Your task to perform on an android device: toggle location history Image 0: 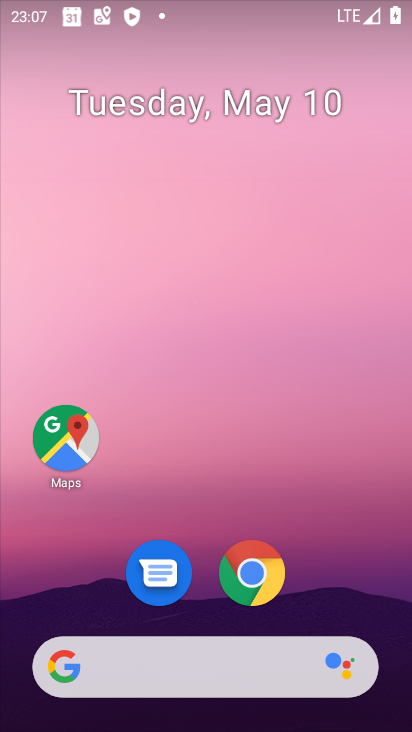
Step 0: click (75, 445)
Your task to perform on an android device: toggle location history Image 1: 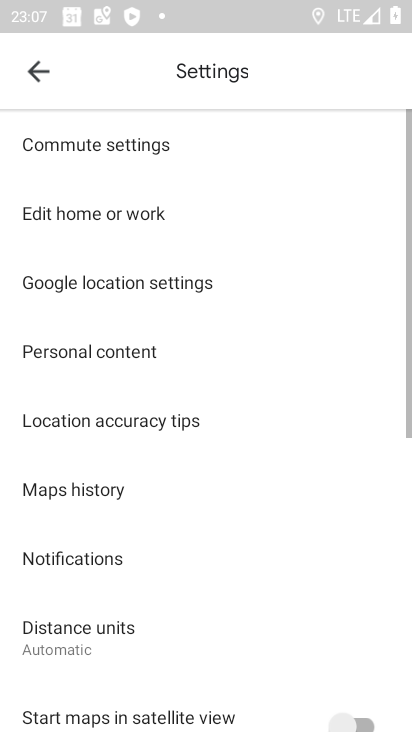
Step 1: click (40, 72)
Your task to perform on an android device: toggle location history Image 2: 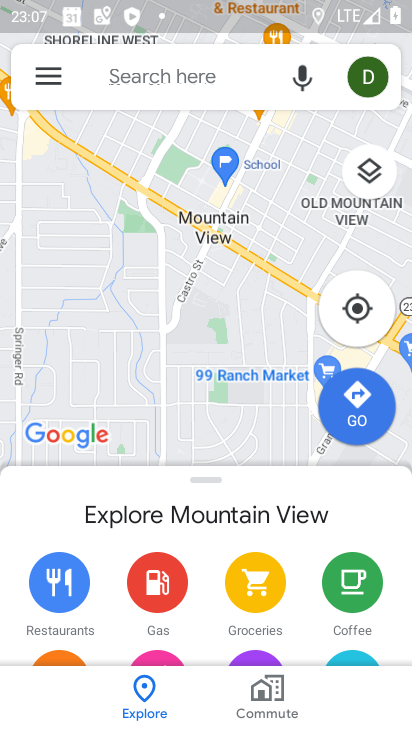
Step 2: click (51, 66)
Your task to perform on an android device: toggle location history Image 3: 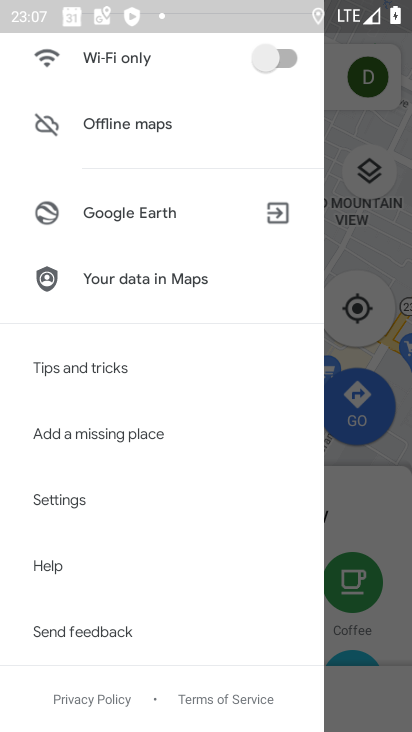
Step 3: drag from (171, 226) to (179, 730)
Your task to perform on an android device: toggle location history Image 4: 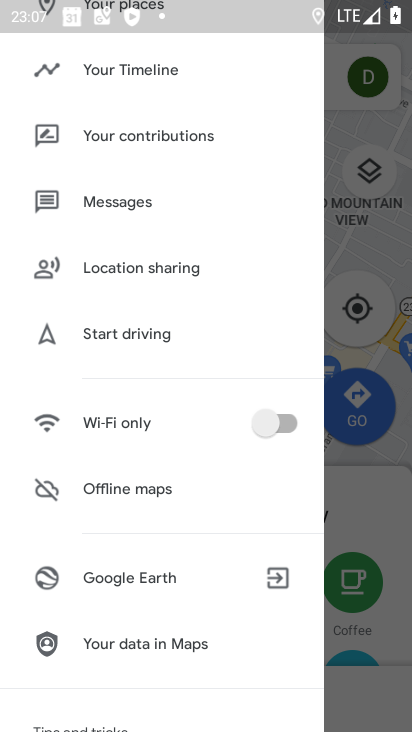
Step 4: click (140, 73)
Your task to perform on an android device: toggle location history Image 5: 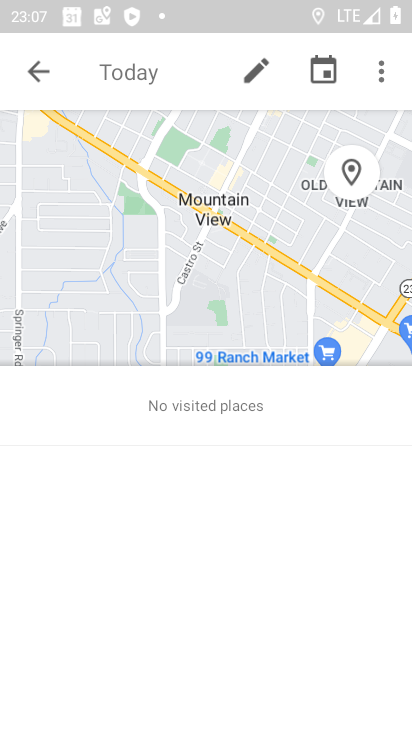
Step 5: click (374, 67)
Your task to perform on an android device: toggle location history Image 6: 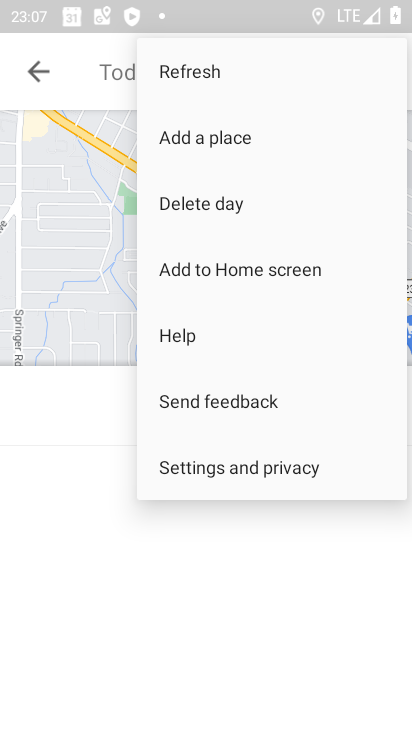
Step 6: click (243, 466)
Your task to perform on an android device: toggle location history Image 7: 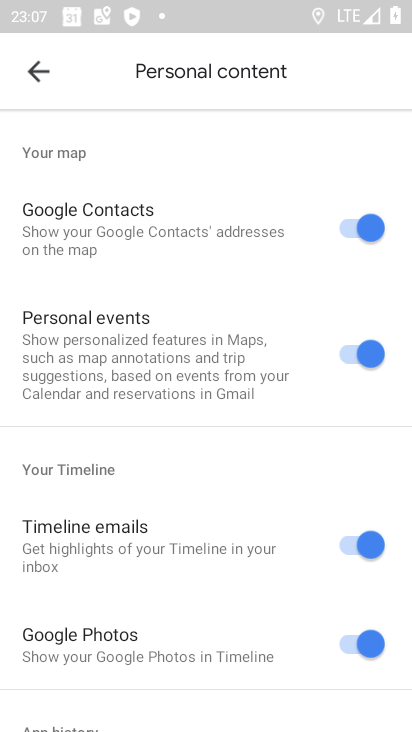
Step 7: drag from (240, 486) to (190, 231)
Your task to perform on an android device: toggle location history Image 8: 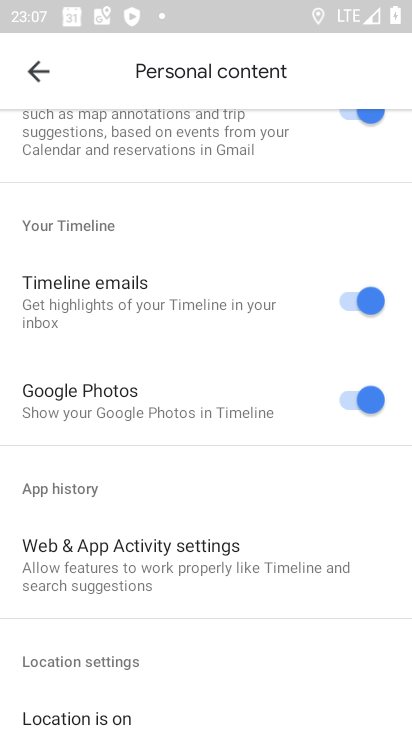
Step 8: drag from (220, 548) to (187, 219)
Your task to perform on an android device: toggle location history Image 9: 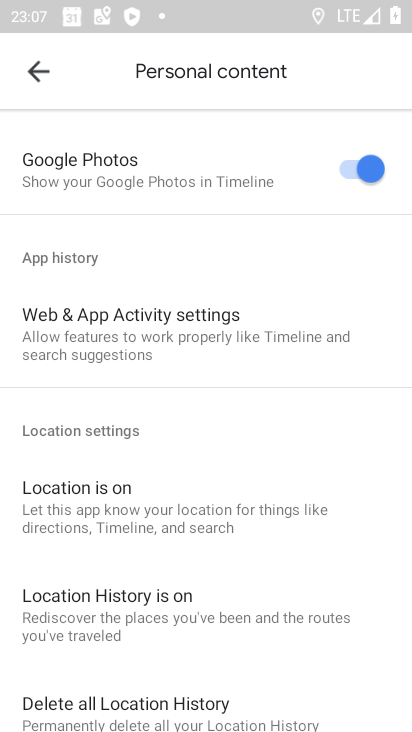
Step 9: drag from (232, 574) to (214, 292)
Your task to perform on an android device: toggle location history Image 10: 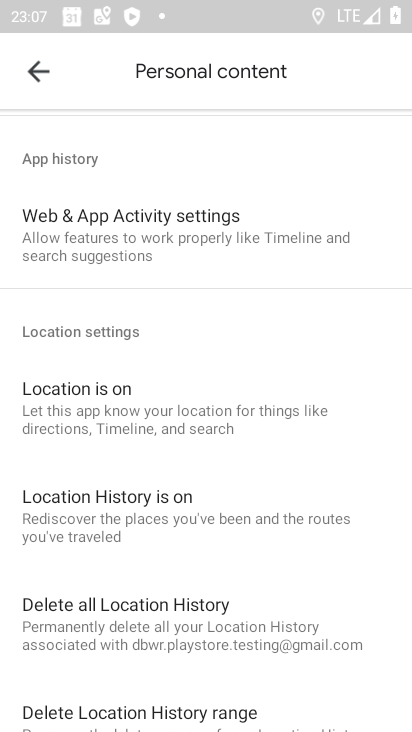
Step 10: click (126, 511)
Your task to perform on an android device: toggle location history Image 11: 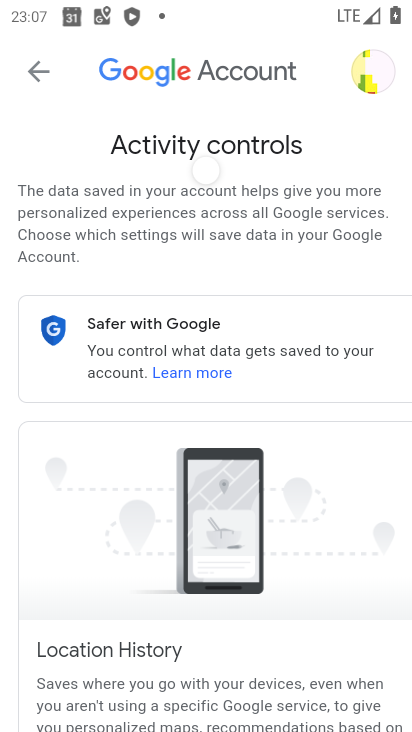
Step 11: drag from (106, 491) to (115, 179)
Your task to perform on an android device: toggle location history Image 12: 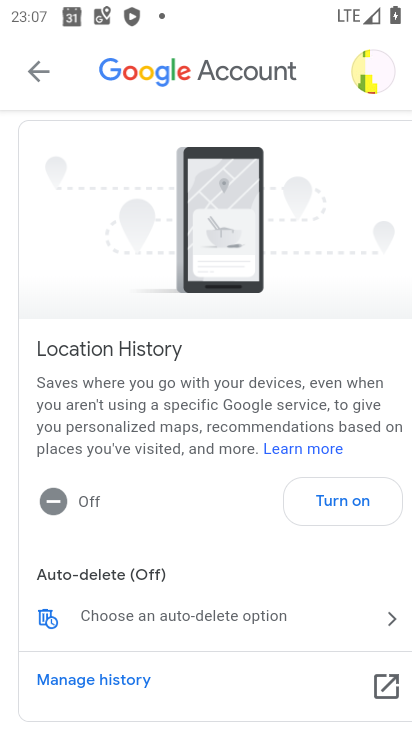
Step 12: click (326, 504)
Your task to perform on an android device: toggle location history Image 13: 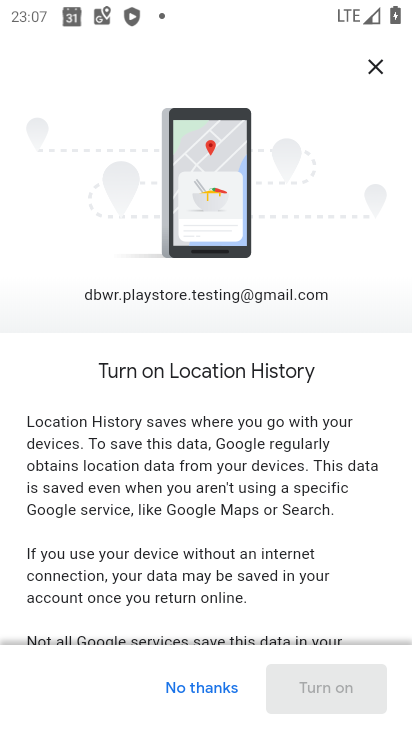
Step 13: drag from (283, 570) to (226, 180)
Your task to perform on an android device: toggle location history Image 14: 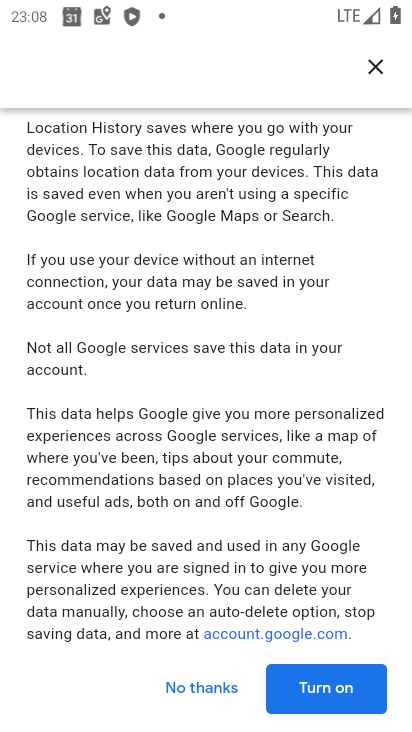
Step 14: click (332, 681)
Your task to perform on an android device: toggle location history Image 15: 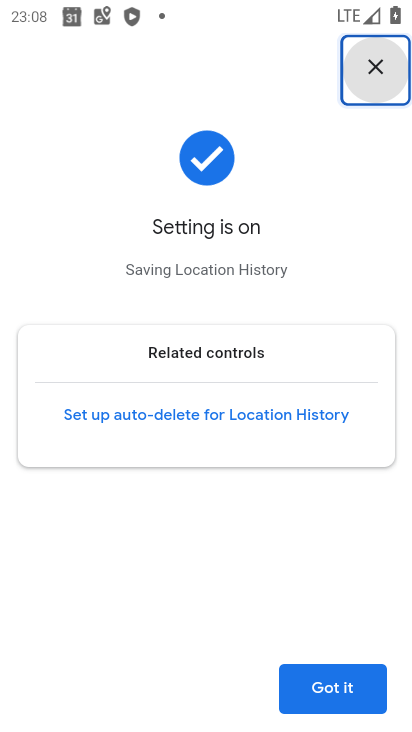
Step 15: click (341, 689)
Your task to perform on an android device: toggle location history Image 16: 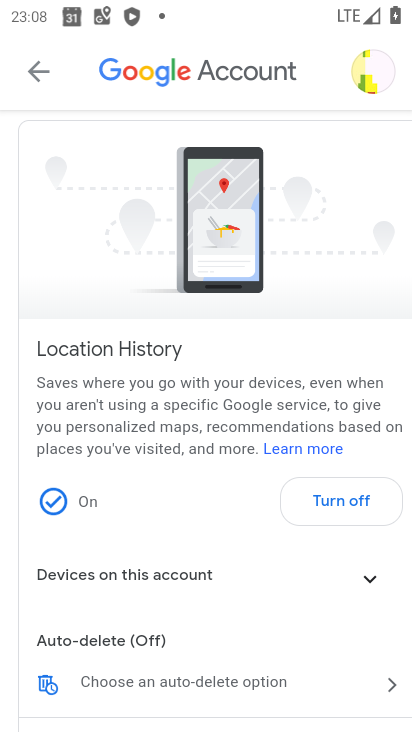
Step 16: task complete